Your task to perform on an android device: See recent photos Image 0: 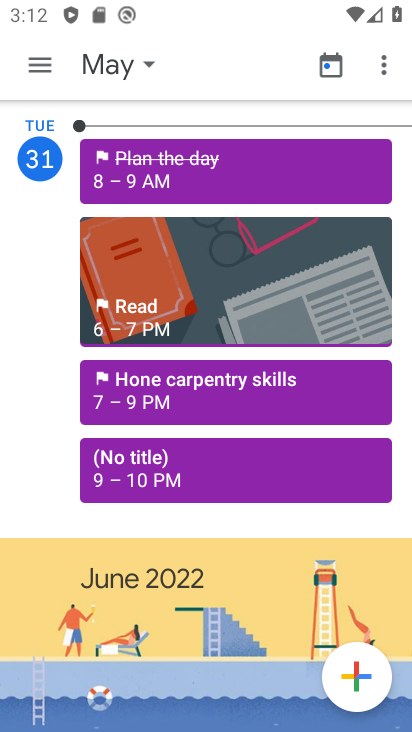
Step 0: press home button
Your task to perform on an android device: See recent photos Image 1: 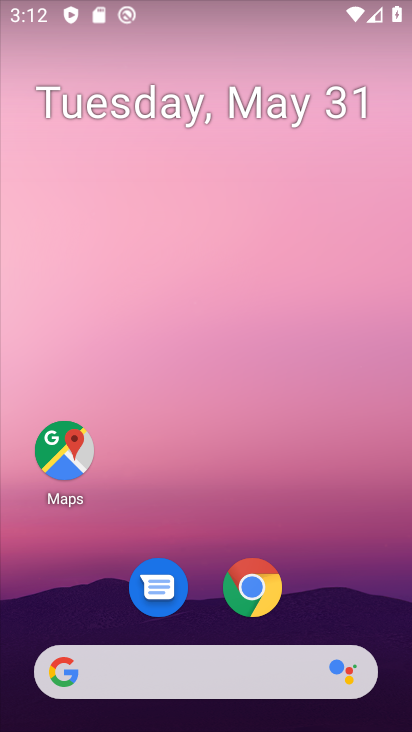
Step 1: drag from (310, 625) to (278, 35)
Your task to perform on an android device: See recent photos Image 2: 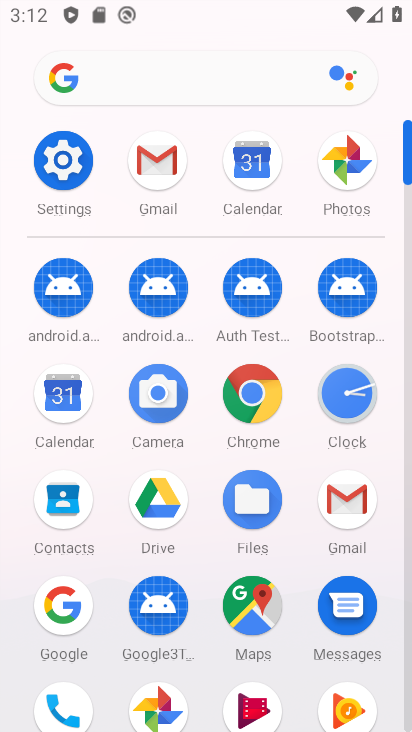
Step 2: click (343, 149)
Your task to perform on an android device: See recent photos Image 3: 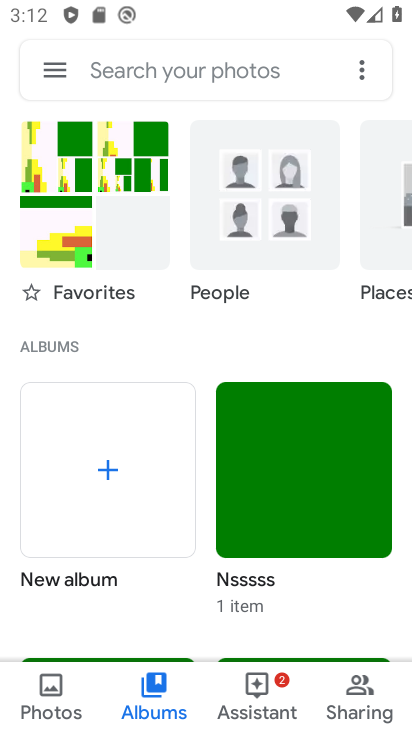
Step 3: click (43, 691)
Your task to perform on an android device: See recent photos Image 4: 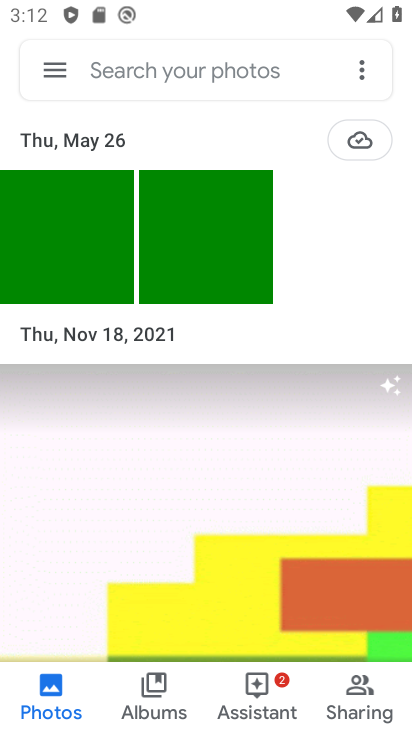
Step 4: task complete